Your task to perform on an android device: allow notifications from all sites in the chrome app Image 0: 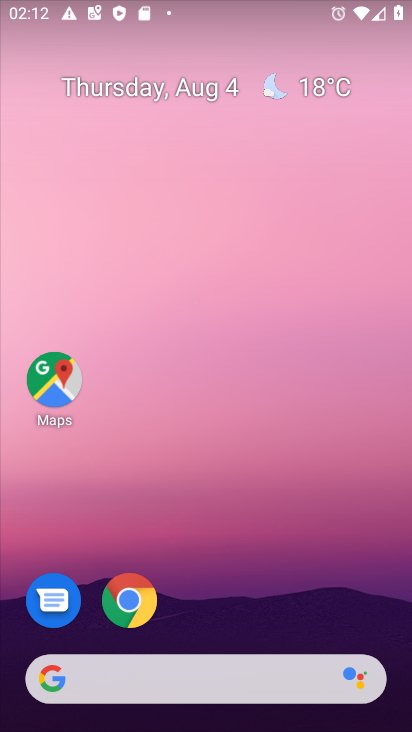
Step 0: click (126, 588)
Your task to perform on an android device: allow notifications from all sites in the chrome app Image 1: 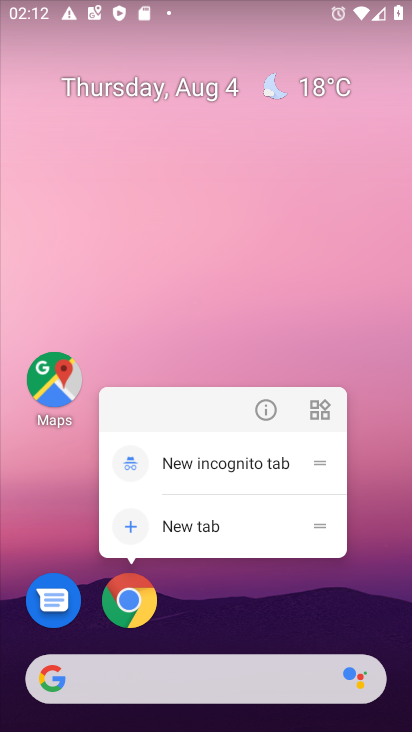
Step 1: click (126, 600)
Your task to perform on an android device: allow notifications from all sites in the chrome app Image 2: 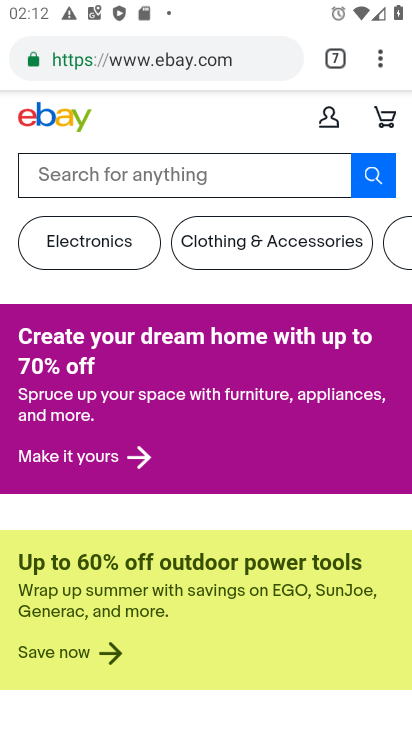
Step 2: drag from (383, 61) to (205, 621)
Your task to perform on an android device: allow notifications from all sites in the chrome app Image 3: 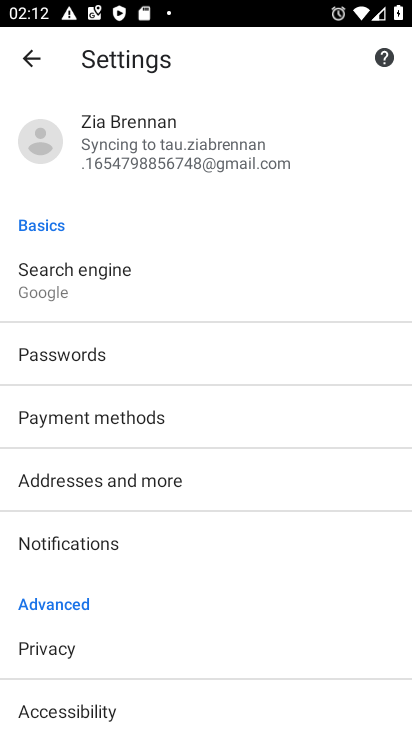
Step 3: drag from (116, 621) to (257, 138)
Your task to perform on an android device: allow notifications from all sites in the chrome app Image 4: 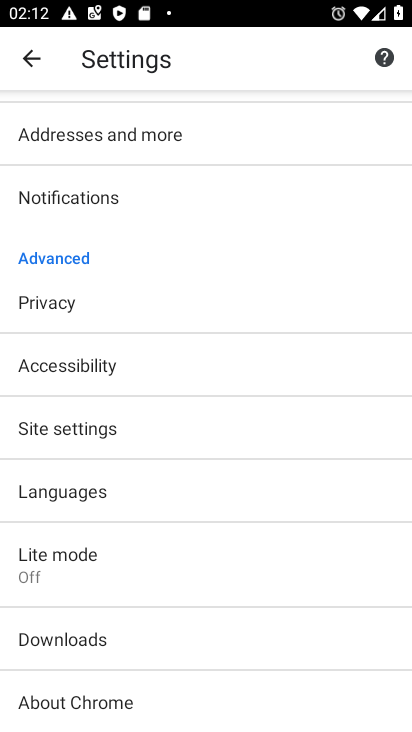
Step 4: click (69, 423)
Your task to perform on an android device: allow notifications from all sites in the chrome app Image 5: 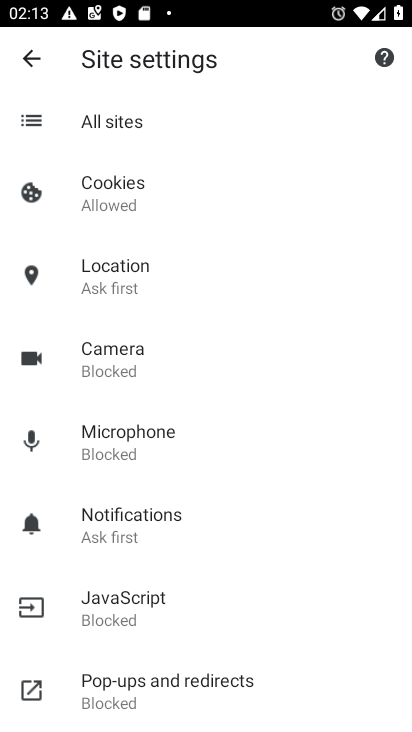
Step 5: click (100, 510)
Your task to perform on an android device: allow notifications from all sites in the chrome app Image 6: 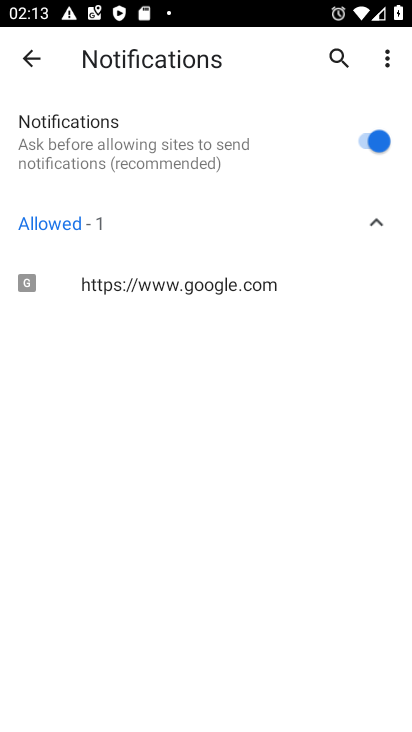
Step 6: task complete